Your task to perform on an android device: Go to network settings Image 0: 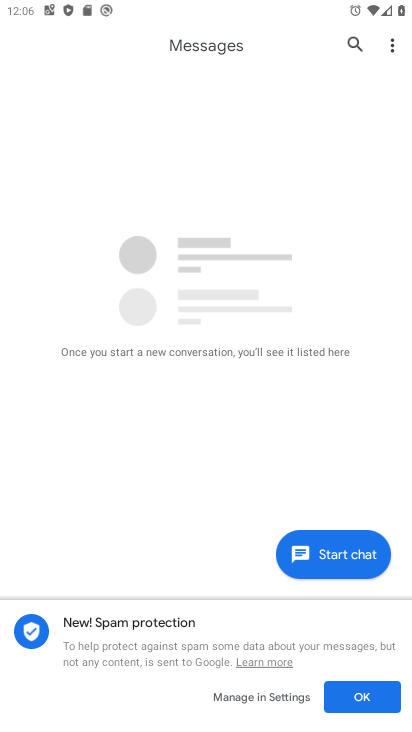
Step 0: press home button
Your task to perform on an android device: Go to network settings Image 1: 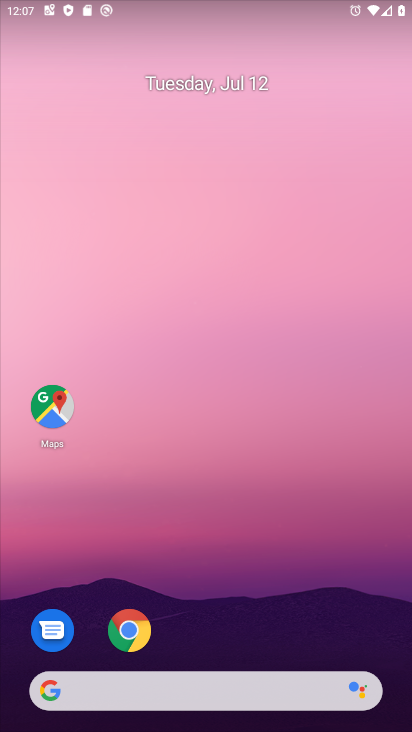
Step 1: drag from (192, 693) to (263, 181)
Your task to perform on an android device: Go to network settings Image 2: 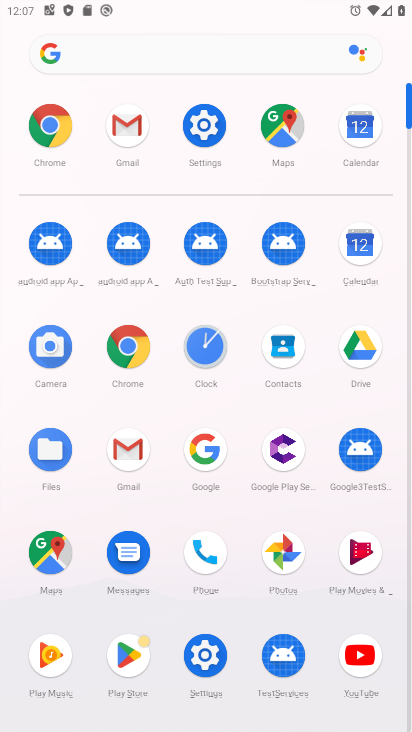
Step 2: click (203, 125)
Your task to perform on an android device: Go to network settings Image 3: 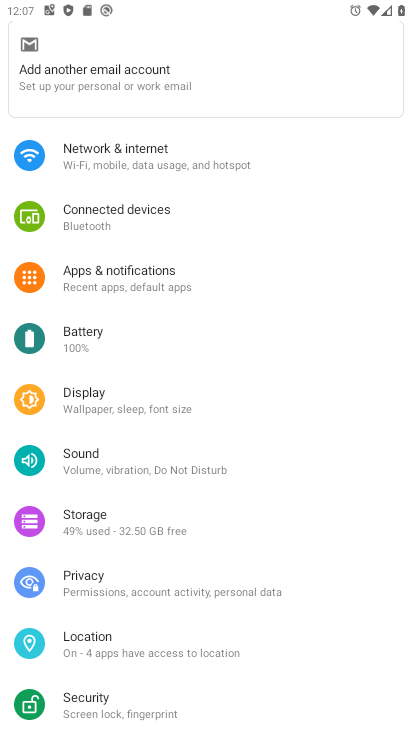
Step 3: click (152, 154)
Your task to perform on an android device: Go to network settings Image 4: 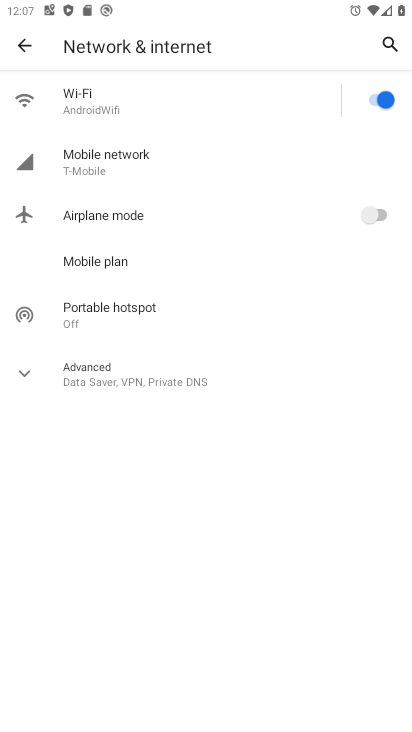
Step 4: task complete